Your task to perform on an android device: move an email to a new category in the gmail app Image 0: 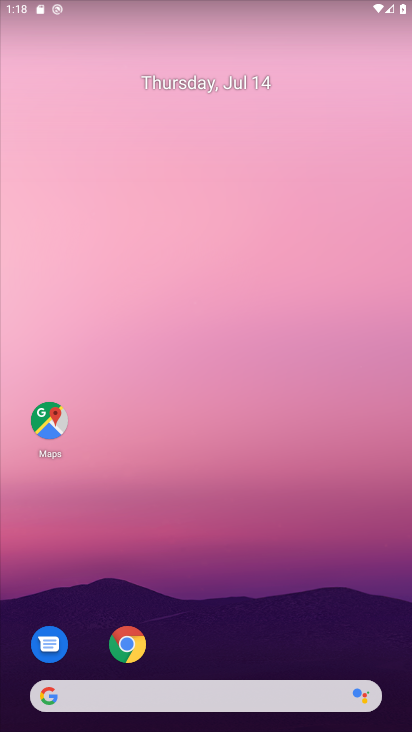
Step 0: drag from (233, 565) to (293, 196)
Your task to perform on an android device: move an email to a new category in the gmail app Image 1: 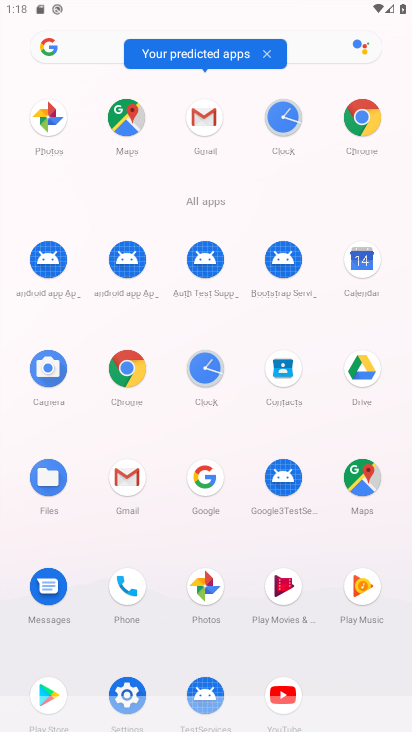
Step 1: click (129, 484)
Your task to perform on an android device: move an email to a new category in the gmail app Image 2: 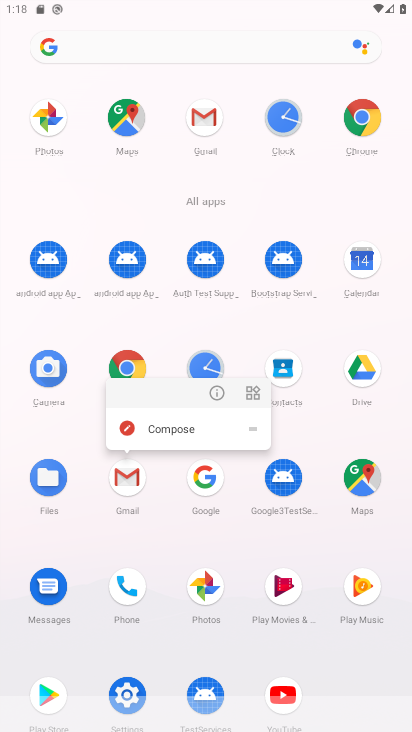
Step 2: click (129, 484)
Your task to perform on an android device: move an email to a new category in the gmail app Image 3: 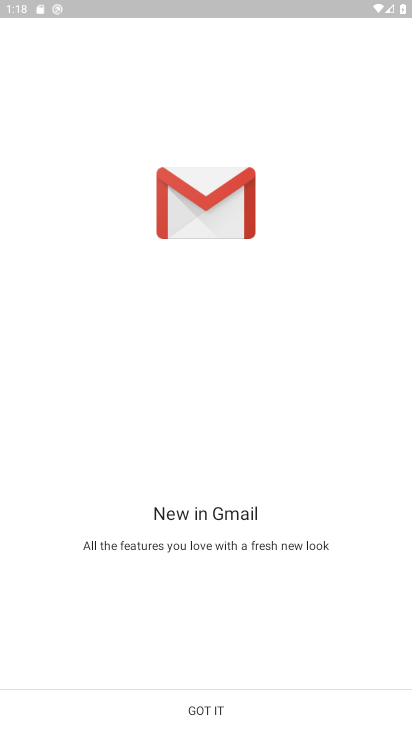
Step 3: click (203, 702)
Your task to perform on an android device: move an email to a new category in the gmail app Image 4: 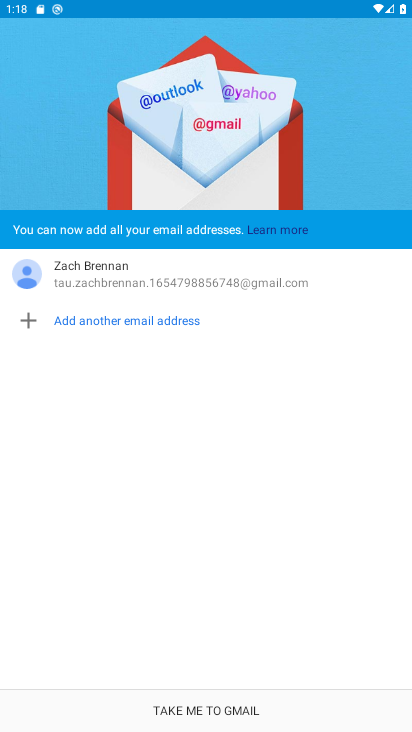
Step 4: click (266, 704)
Your task to perform on an android device: move an email to a new category in the gmail app Image 5: 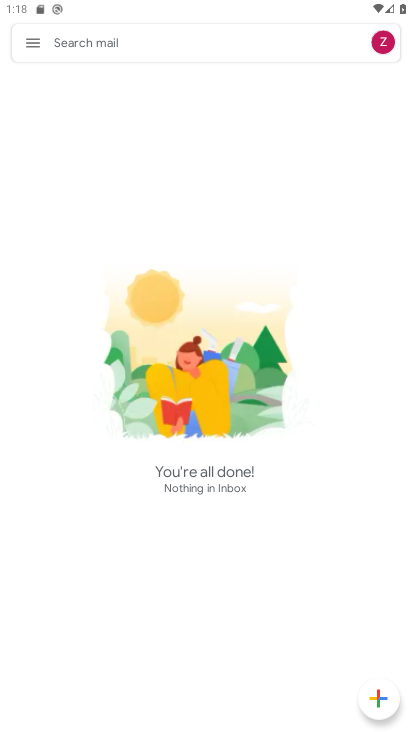
Step 5: click (25, 46)
Your task to perform on an android device: move an email to a new category in the gmail app Image 6: 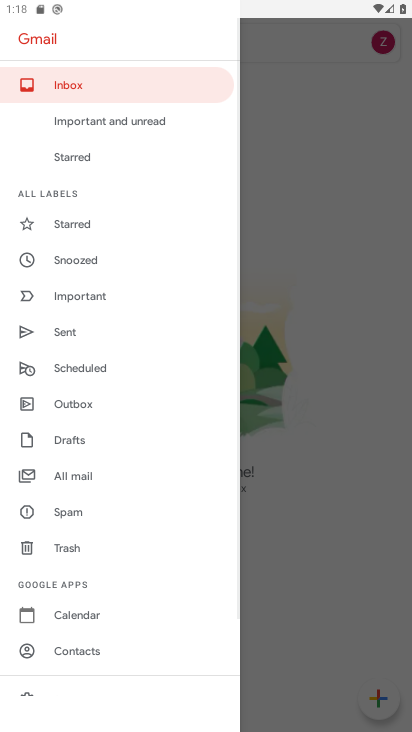
Step 6: click (98, 481)
Your task to perform on an android device: move an email to a new category in the gmail app Image 7: 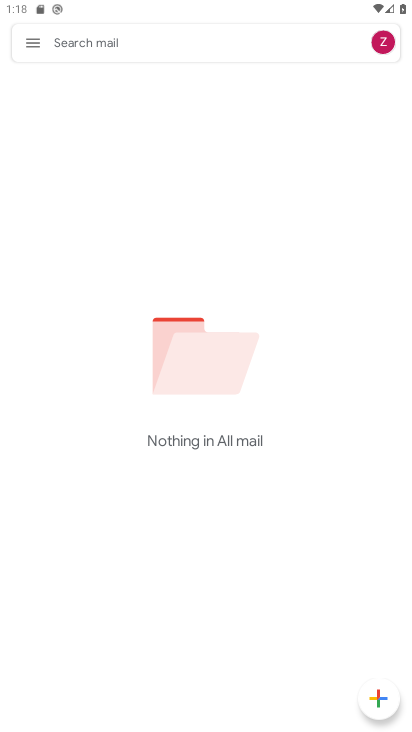
Step 7: task complete